Your task to perform on an android device: turn off location Image 0: 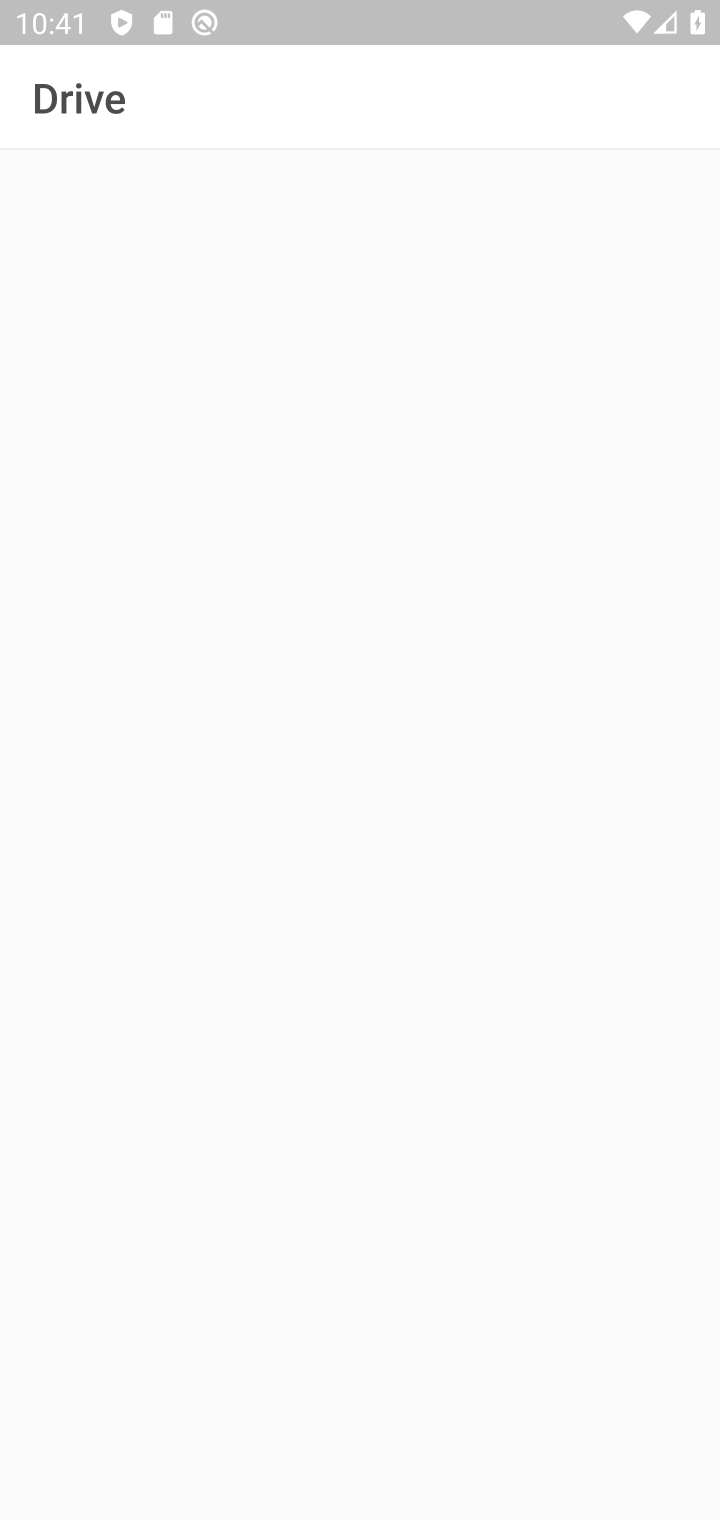
Step 0: press home button
Your task to perform on an android device: turn off location Image 1: 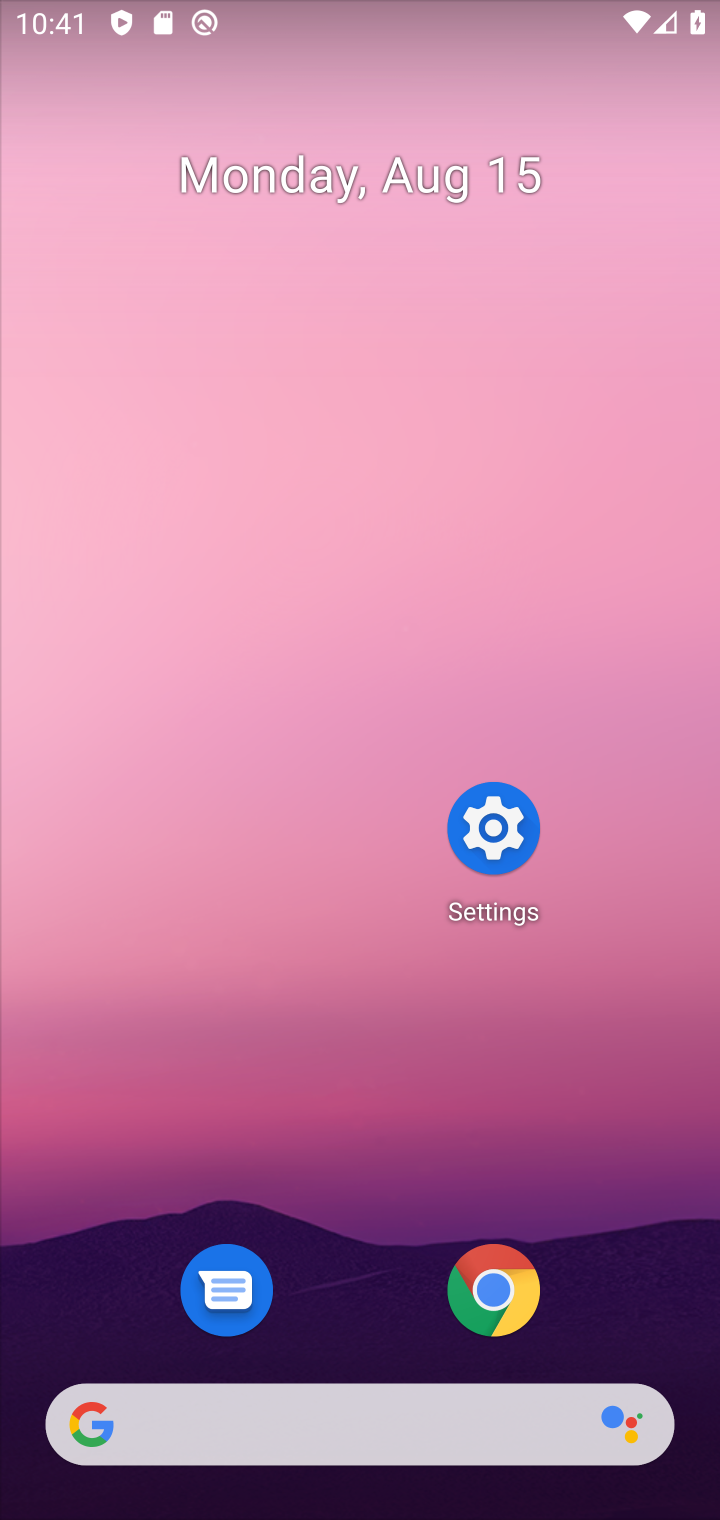
Step 1: click (502, 825)
Your task to perform on an android device: turn off location Image 2: 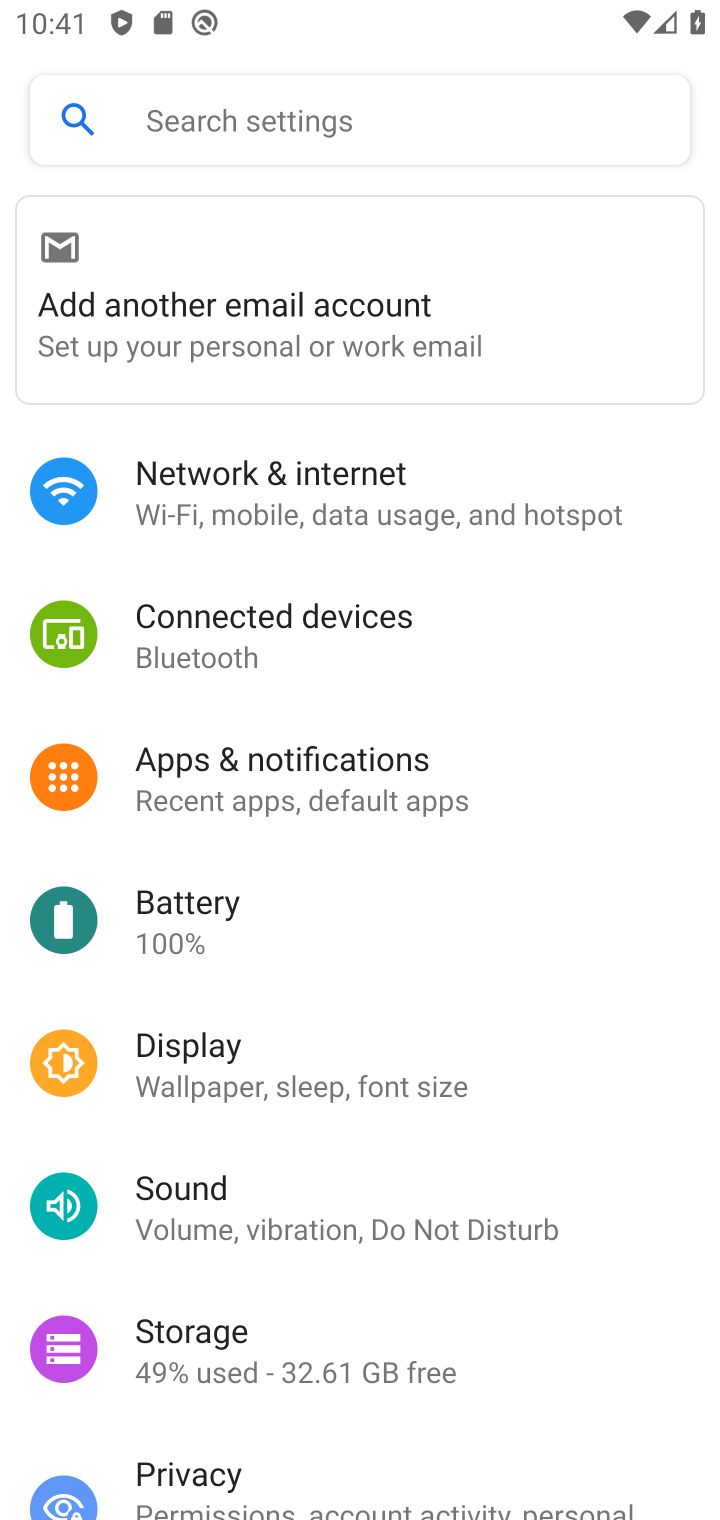
Step 2: drag from (463, 1327) to (453, 163)
Your task to perform on an android device: turn off location Image 3: 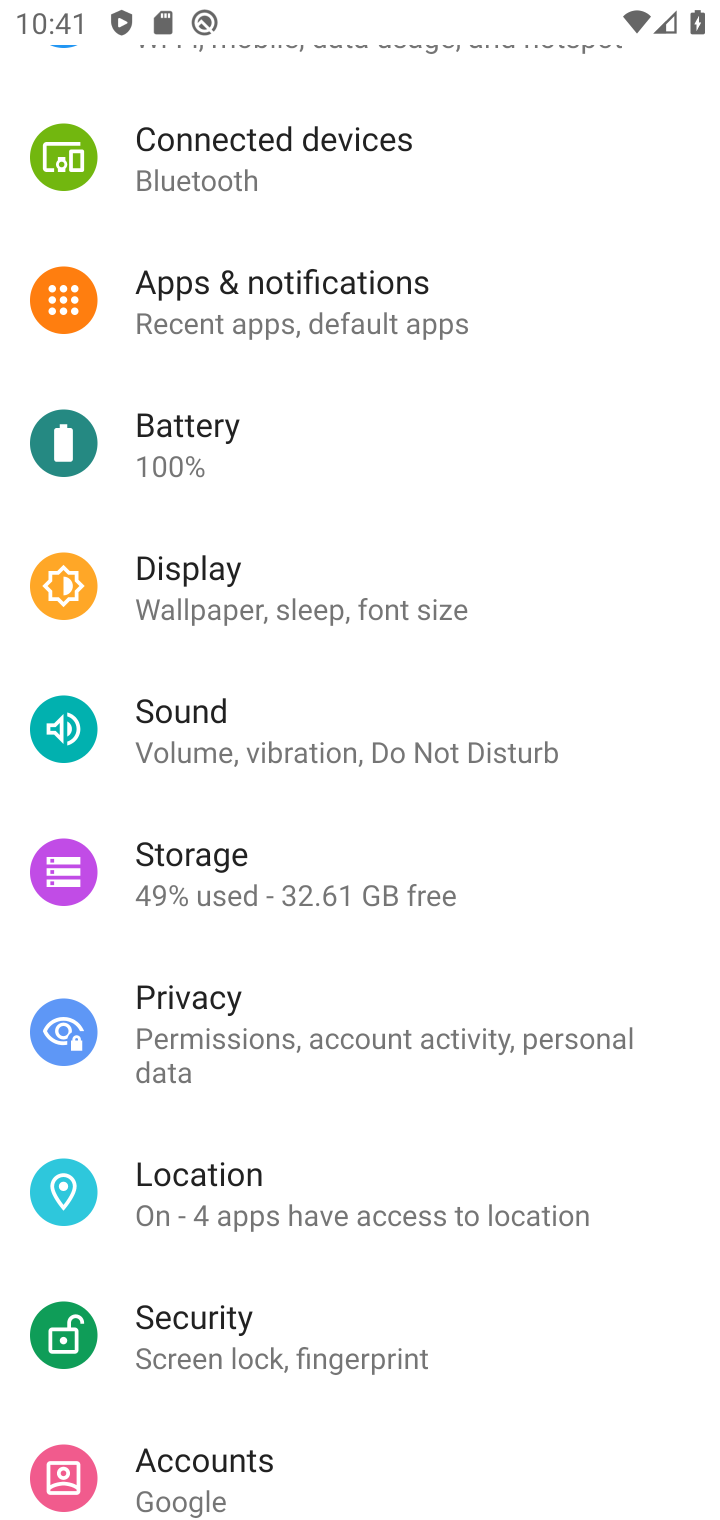
Step 3: click (196, 1180)
Your task to perform on an android device: turn off location Image 4: 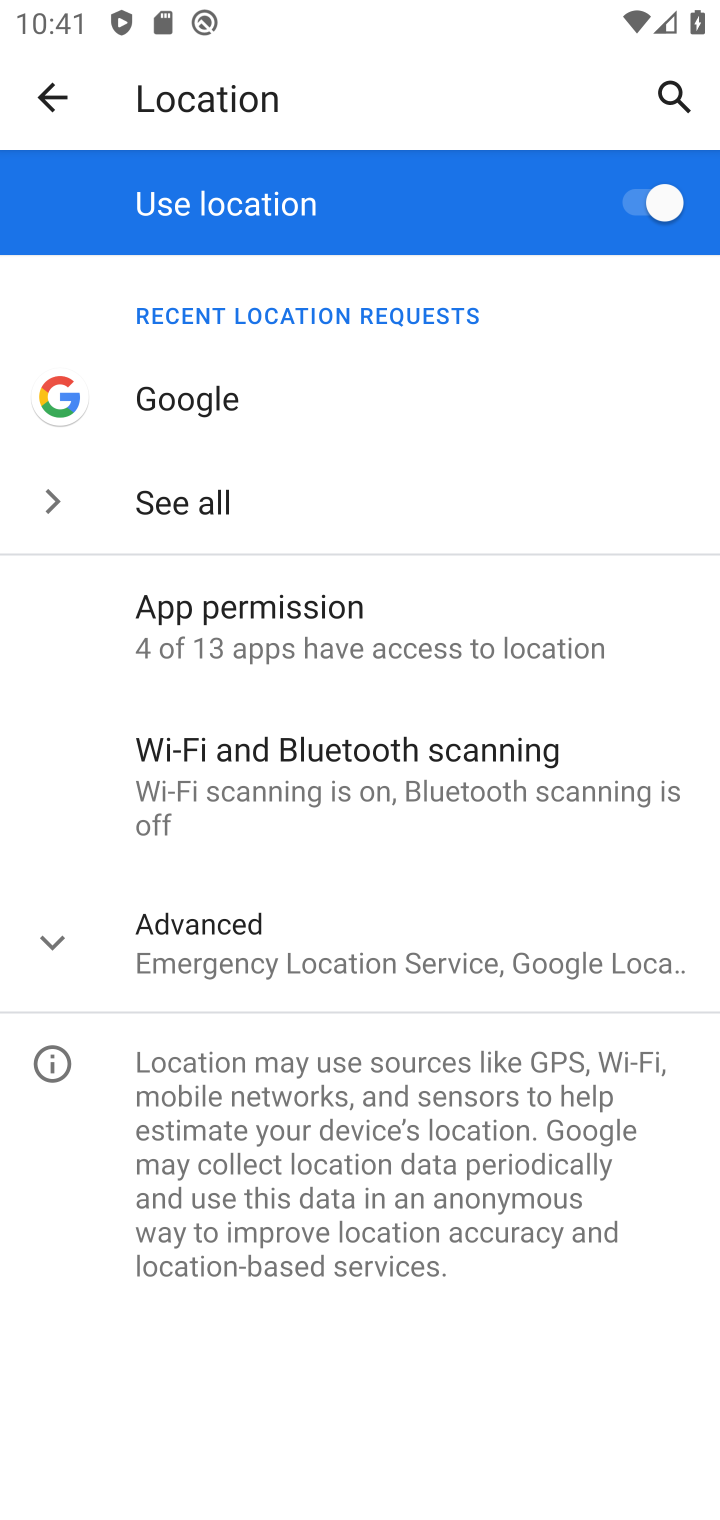
Step 4: click (649, 187)
Your task to perform on an android device: turn off location Image 5: 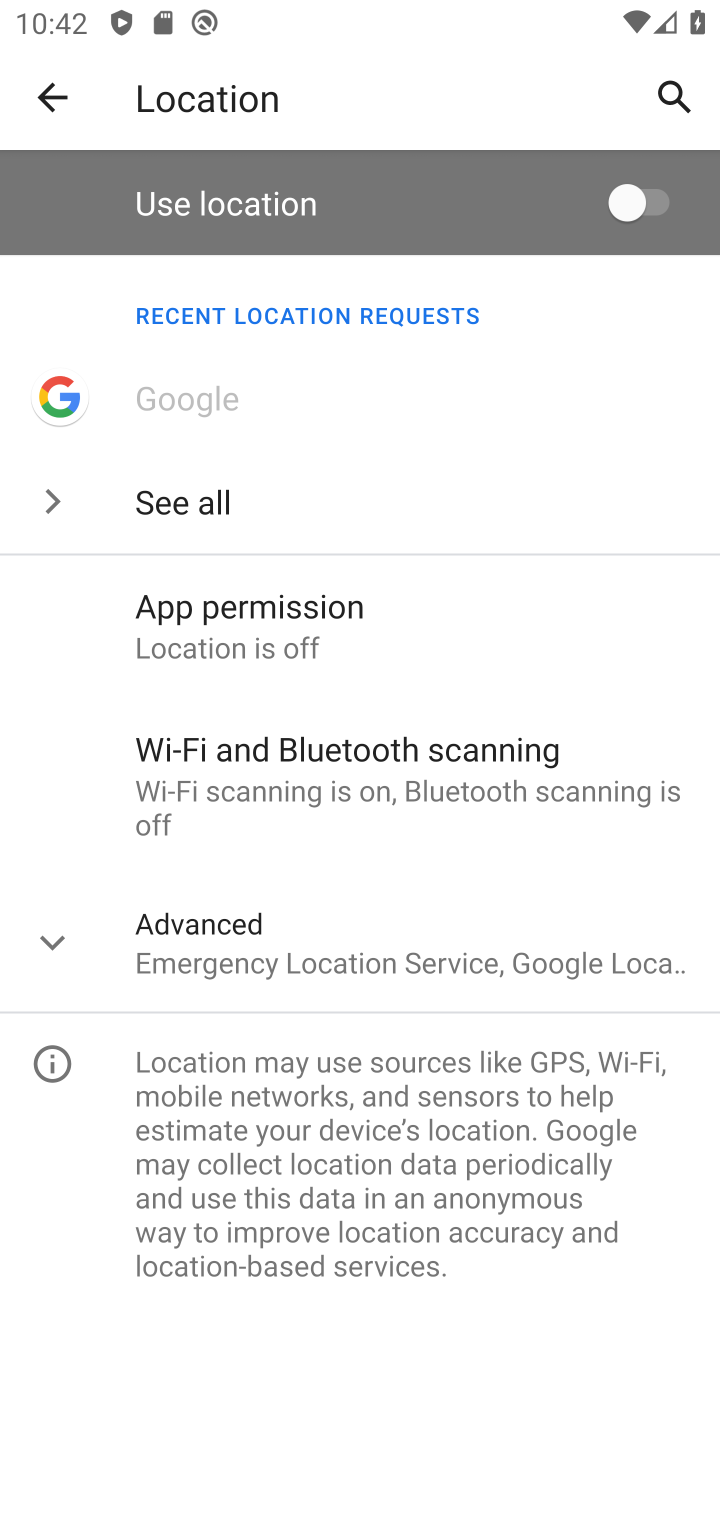
Step 5: task complete